Your task to perform on an android device: Search for vegetarian restaurants on Maps Image 0: 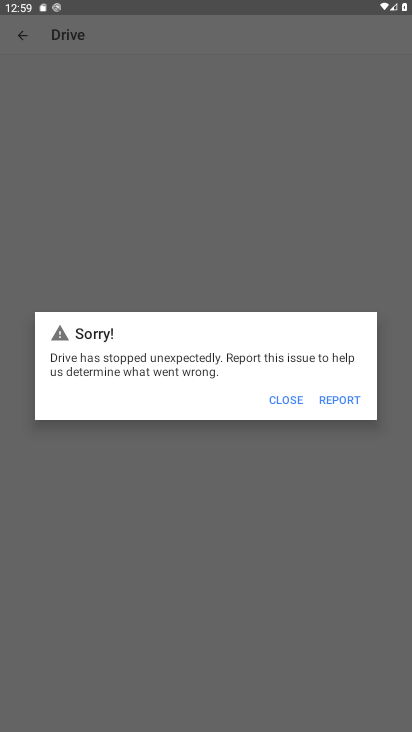
Step 0: click (281, 397)
Your task to perform on an android device: Search for vegetarian restaurants on Maps Image 1: 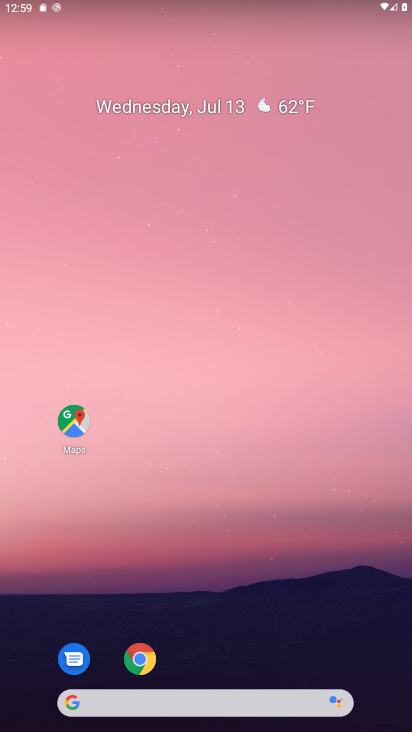
Step 1: drag from (222, 513) to (208, 115)
Your task to perform on an android device: Search for vegetarian restaurants on Maps Image 2: 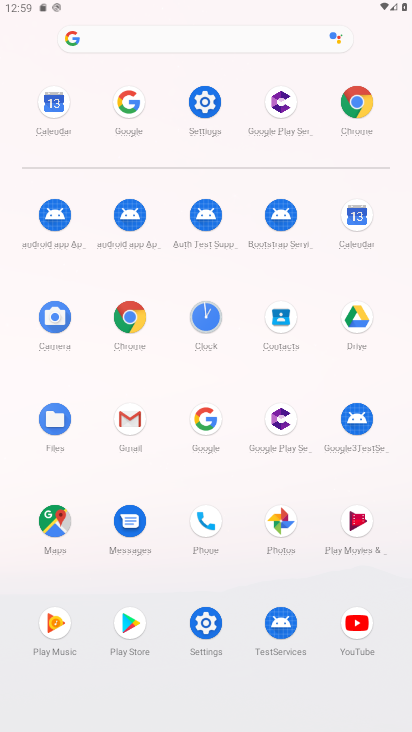
Step 2: click (62, 530)
Your task to perform on an android device: Search for vegetarian restaurants on Maps Image 3: 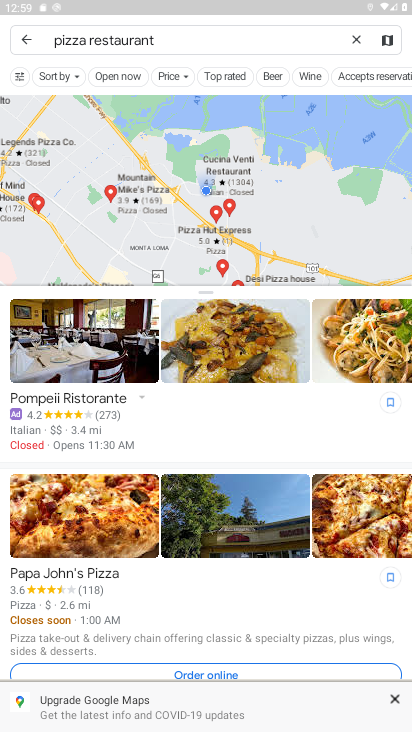
Step 3: click (149, 35)
Your task to perform on an android device: Search for vegetarian restaurants on Maps Image 4: 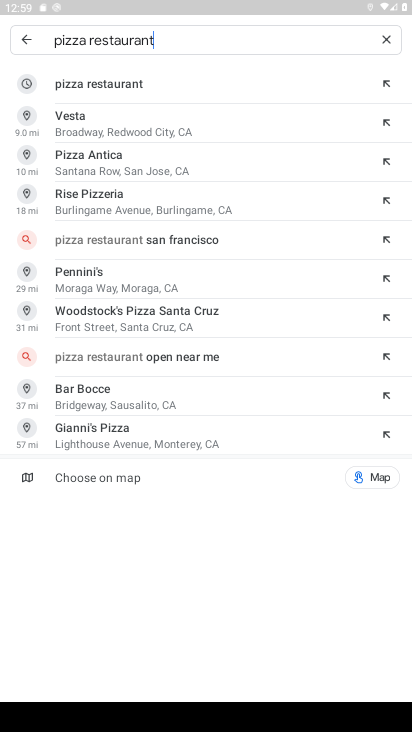
Step 4: click (81, 34)
Your task to perform on an android device: Search for vegetarian restaurants on Maps Image 5: 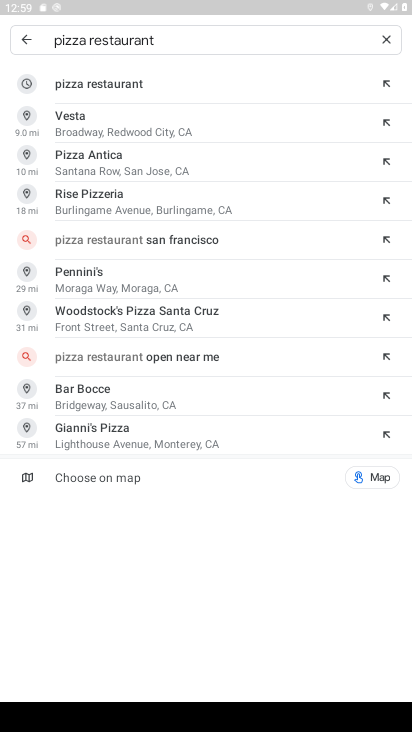
Step 5: click (81, 34)
Your task to perform on an android device: Search for vegetarian restaurants on Maps Image 6: 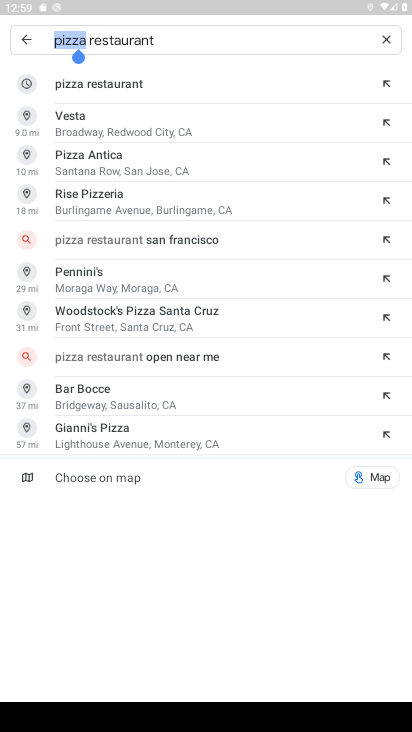
Step 6: click (81, 34)
Your task to perform on an android device: Search for vegetarian restaurants on Maps Image 7: 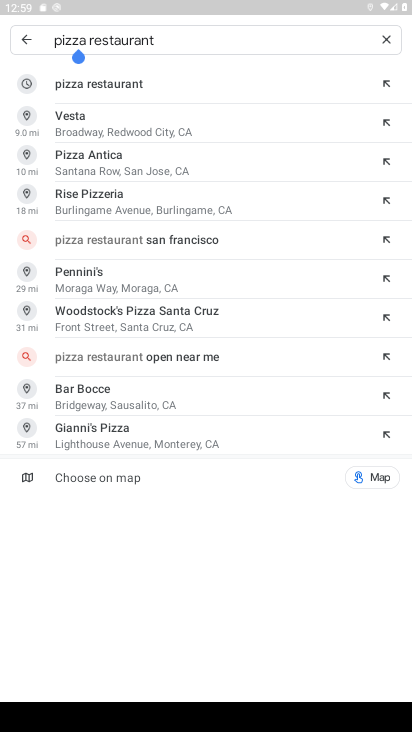
Step 7: click (386, 36)
Your task to perform on an android device: Search for vegetarian restaurants on Maps Image 8: 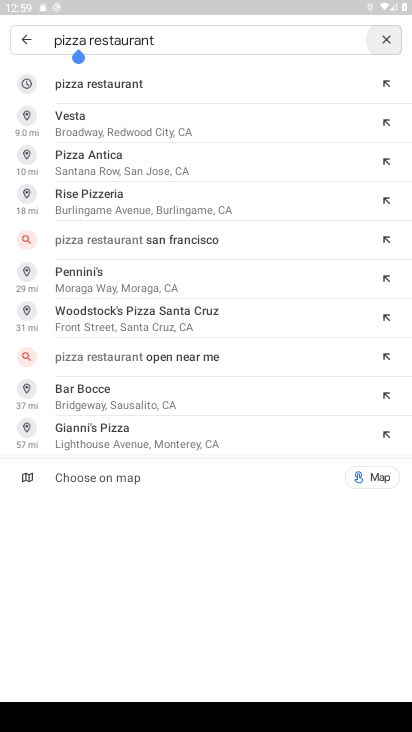
Step 8: click (386, 36)
Your task to perform on an android device: Search for vegetarian restaurants on Maps Image 9: 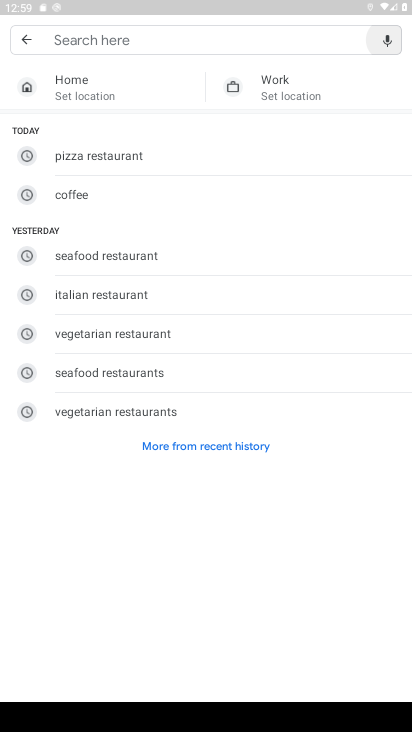
Step 9: click (387, 39)
Your task to perform on an android device: Search for vegetarian restaurants on Maps Image 10: 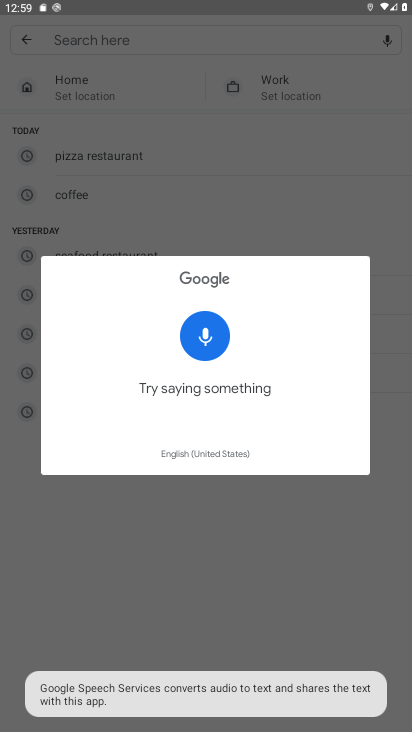
Step 10: click (193, 168)
Your task to perform on an android device: Search for vegetarian restaurants on Maps Image 11: 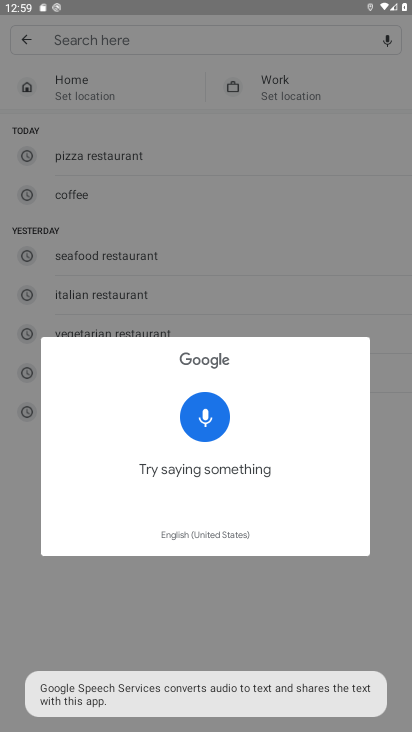
Step 11: click (193, 168)
Your task to perform on an android device: Search for vegetarian restaurants on Maps Image 12: 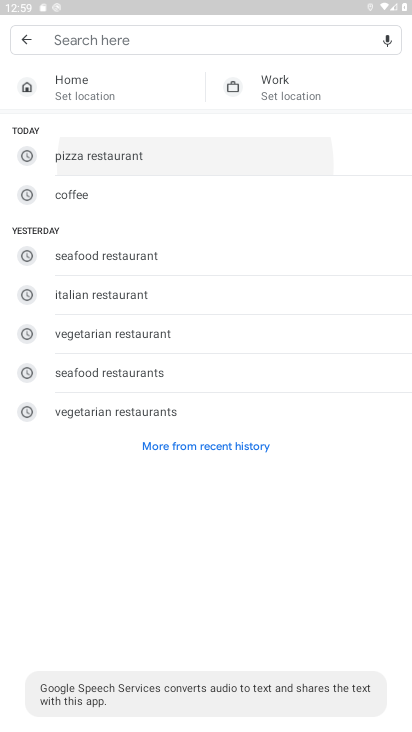
Step 12: click (194, 170)
Your task to perform on an android device: Search for vegetarian restaurants on Maps Image 13: 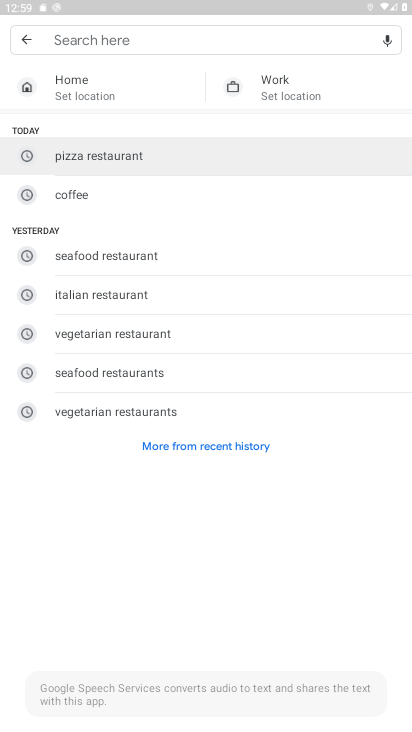
Step 13: click (194, 170)
Your task to perform on an android device: Search for vegetarian restaurants on Maps Image 14: 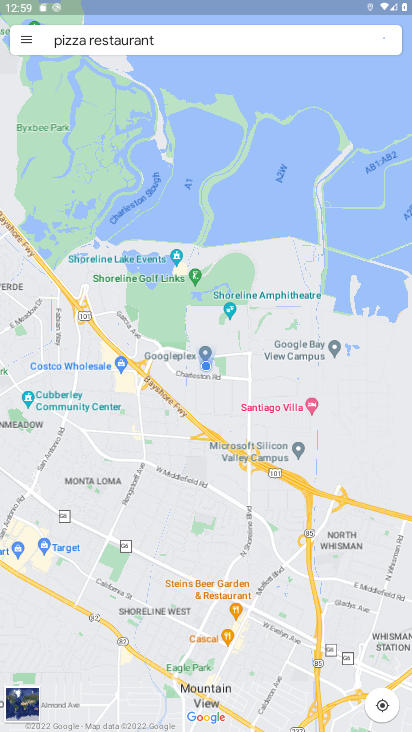
Step 14: press back button
Your task to perform on an android device: Search for vegetarian restaurants on Maps Image 15: 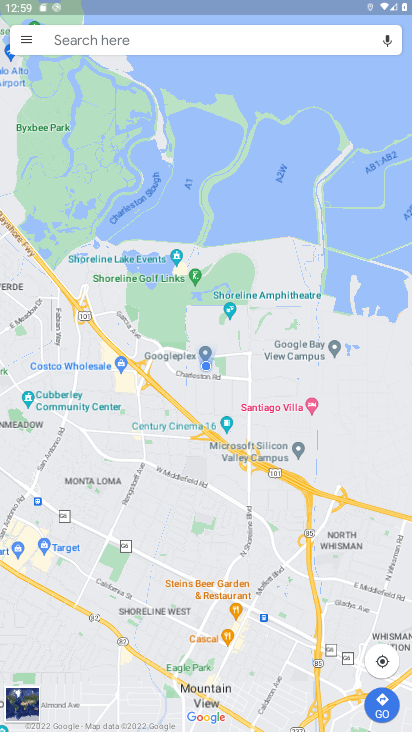
Step 15: press back button
Your task to perform on an android device: Search for vegetarian restaurants on Maps Image 16: 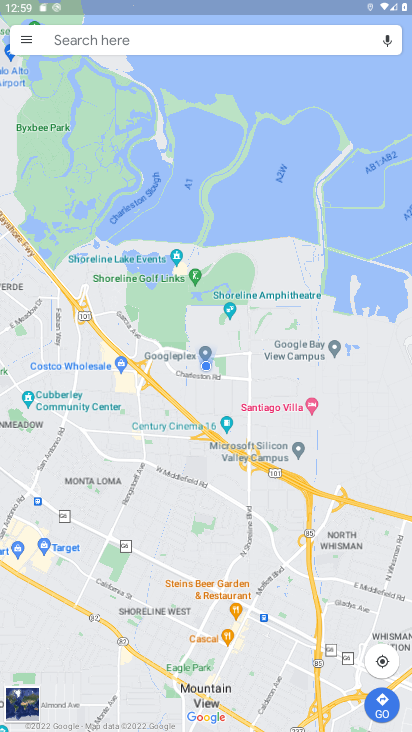
Step 16: press back button
Your task to perform on an android device: Search for vegetarian restaurants on Maps Image 17: 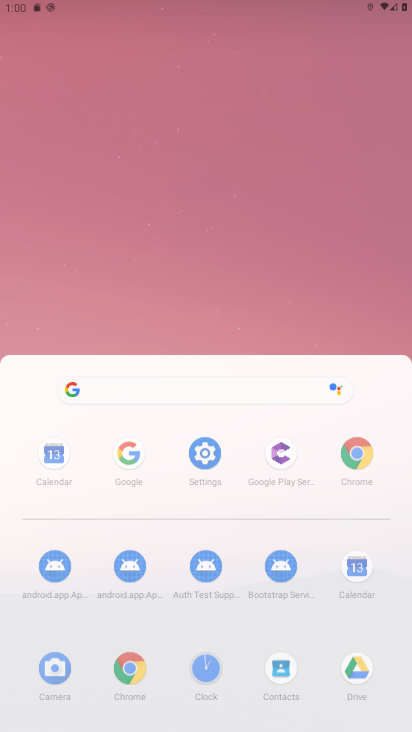
Step 17: press back button
Your task to perform on an android device: Search for vegetarian restaurants on Maps Image 18: 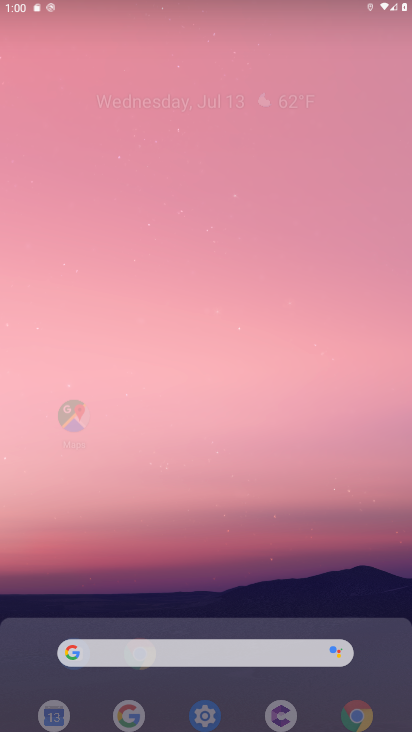
Step 18: click (135, 36)
Your task to perform on an android device: Search for vegetarian restaurants on Maps Image 19: 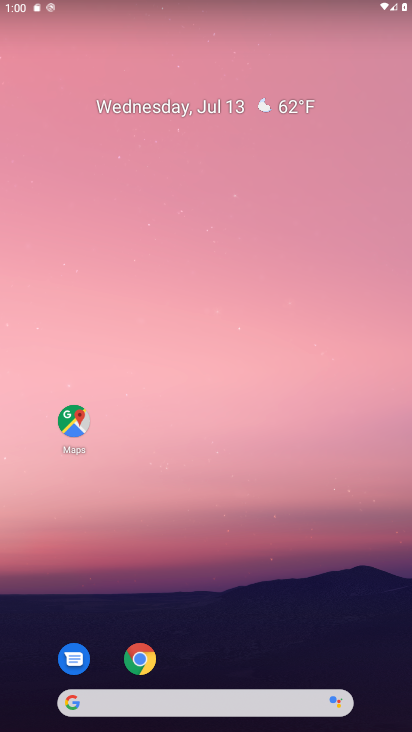
Step 19: drag from (134, 391) to (90, 93)
Your task to perform on an android device: Search for vegetarian restaurants on Maps Image 20: 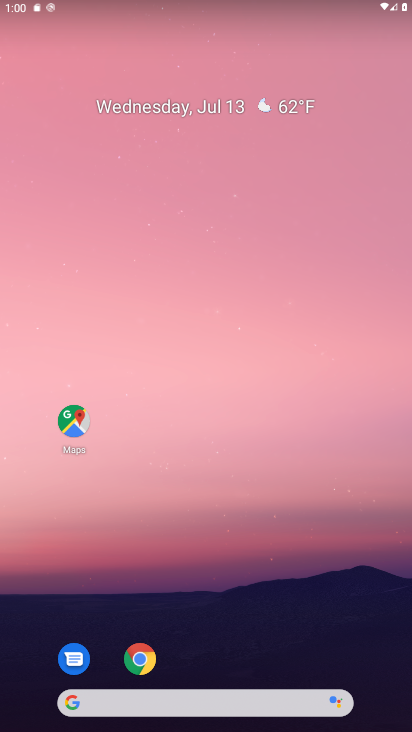
Step 20: drag from (207, 405) to (257, 151)
Your task to perform on an android device: Search for vegetarian restaurants on Maps Image 21: 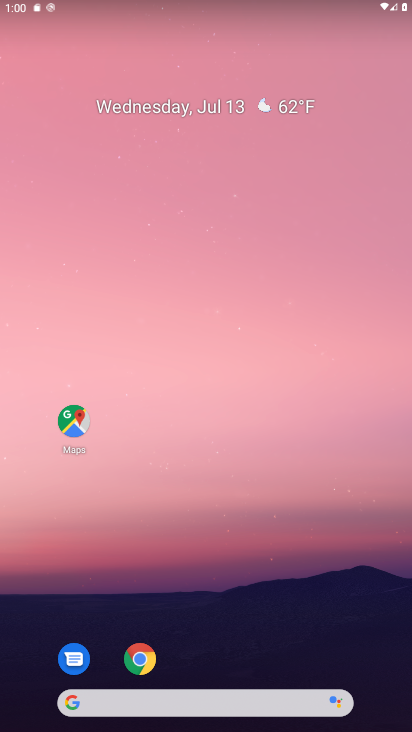
Step 21: drag from (185, 548) to (167, 162)
Your task to perform on an android device: Search for vegetarian restaurants on Maps Image 22: 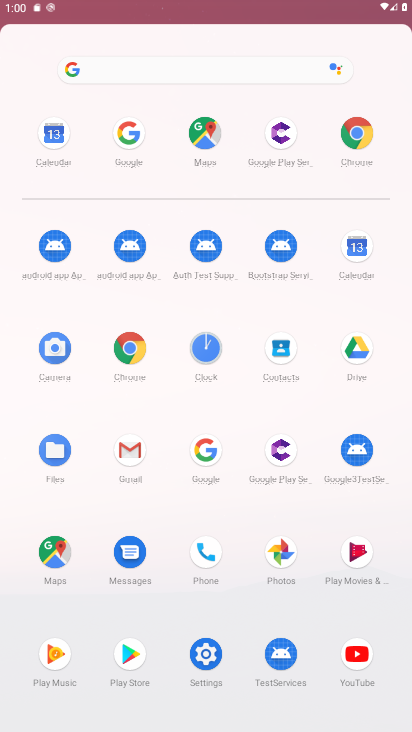
Step 22: drag from (172, 437) to (133, 83)
Your task to perform on an android device: Search for vegetarian restaurants on Maps Image 23: 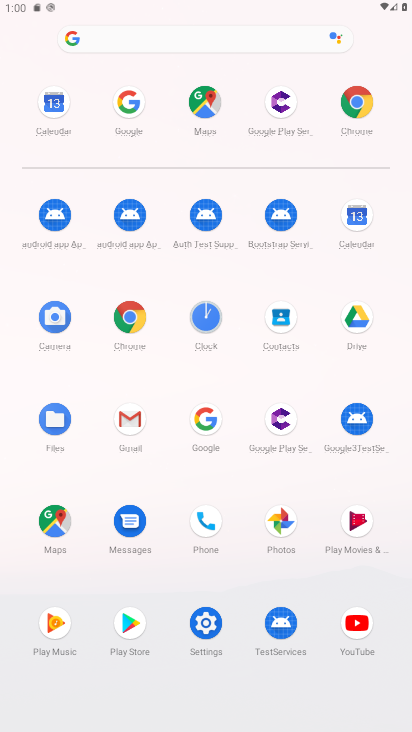
Step 23: drag from (148, 592) to (78, 139)
Your task to perform on an android device: Search for vegetarian restaurants on Maps Image 24: 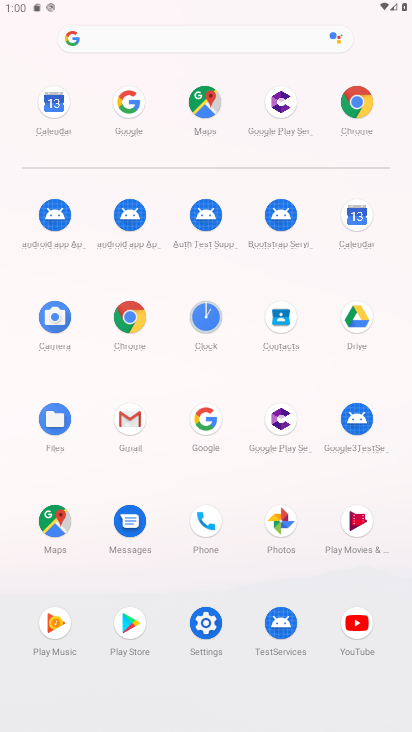
Step 24: click (196, 139)
Your task to perform on an android device: Search for vegetarian restaurants on Maps Image 25: 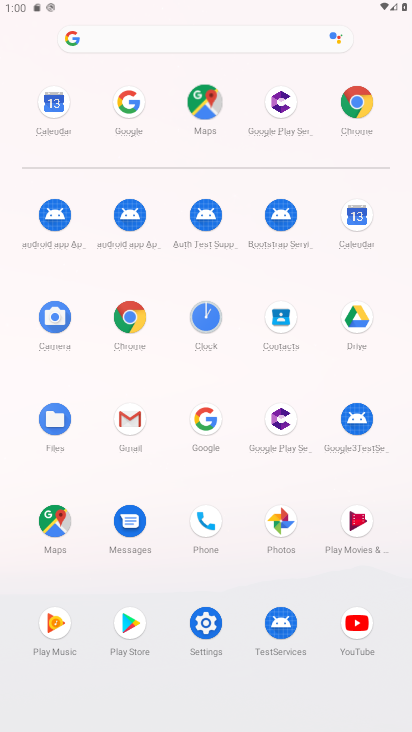
Step 25: click (140, 240)
Your task to perform on an android device: Search for vegetarian restaurants on Maps Image 26: 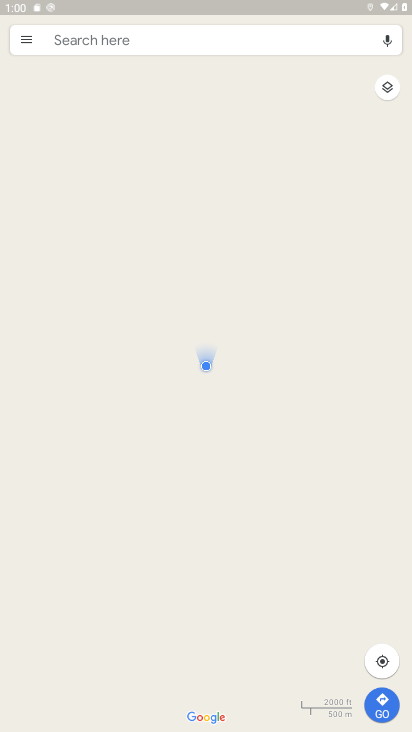
Step 26: drag from (29, 36) to (76, 312)
Your task to perform on an android device: Search for vegetarian restaurants on Maps Image 27: 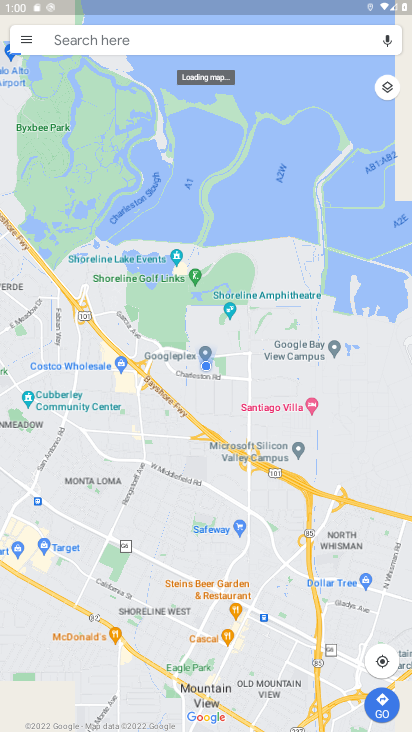
Step 27: drag from (24, 37) to (46, 306)
Your task to perform on an android device: Search for vegetarian restaurants on Maps Image 28: 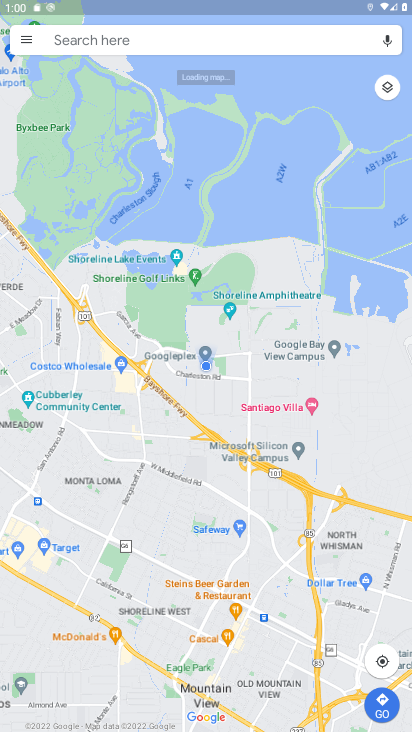
Step 28: click (30, 42)
Your task to perform on an android device: Search for vegetarian restaurants on Maps Image 29: 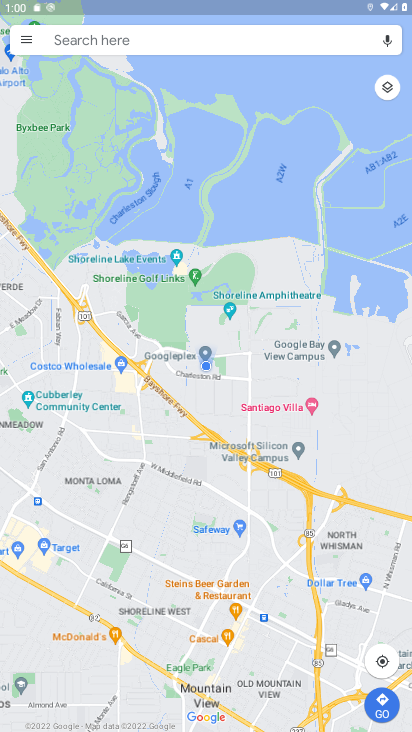
Step 29: drag from (30, 42) to (71, 199)
Your task to perform on an android device: Search for vegetarian restaurants on Maps Image 30: 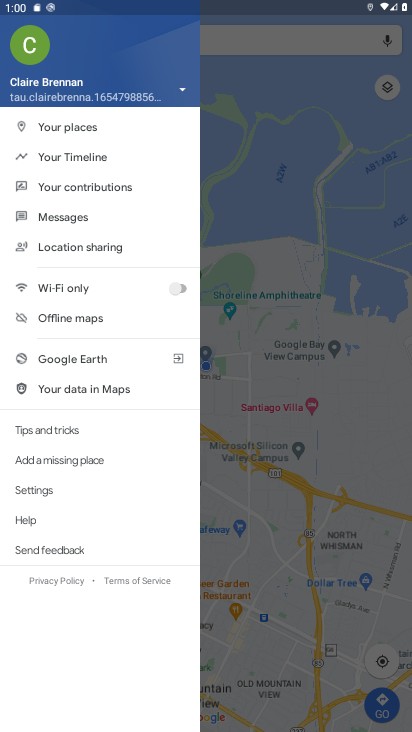
Step 30: click (301, 190)
Your task to perform on an android device: Search for vegetarian restaurants on Maps Image 31: 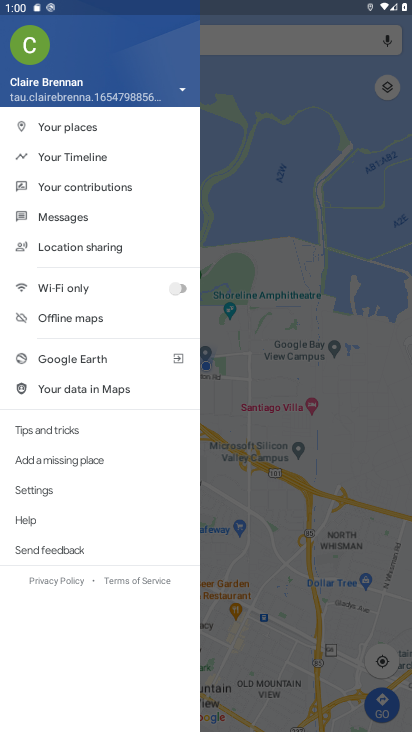
Step 31: click (301, 190)
Your task to perform on an android device: Search for vegetarian restaurants on Maps Image 32: 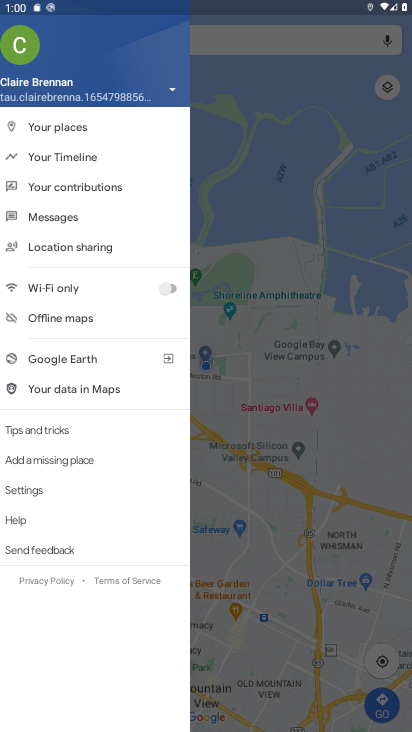
Step 32: click (301, 190)
Your task to perform on an android device: Search for vegetarian restaurants on Maps Image 33: 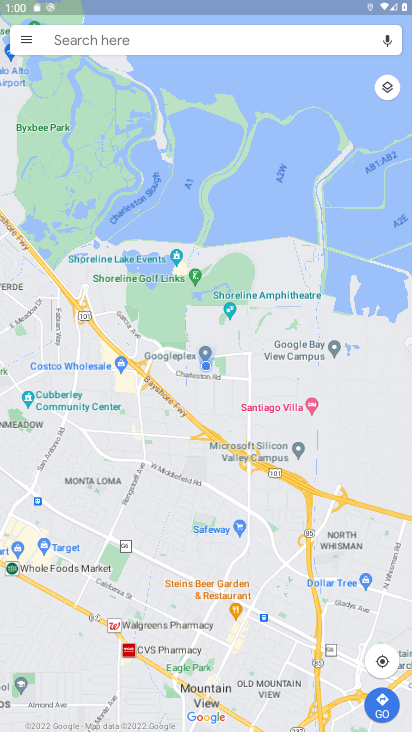
Step 33: click (291, 269)
Your task to perform on an android device: Search for vegetarian restaurants on Maps Image 34: 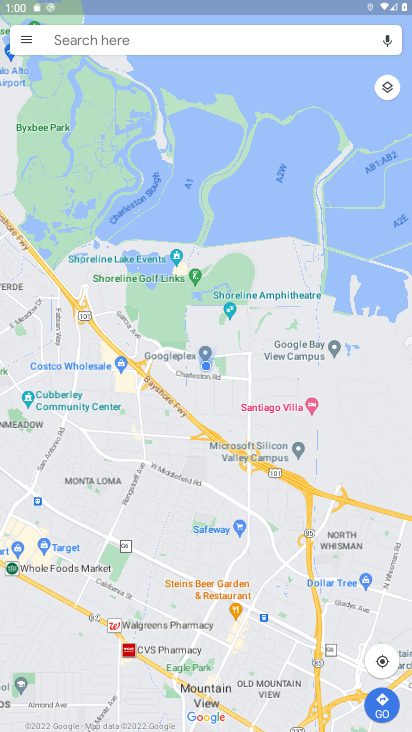
Step 34: click (85, 44)
Your task to perform on an android device: Search for vegetarian restaurants on Maps Image 35: 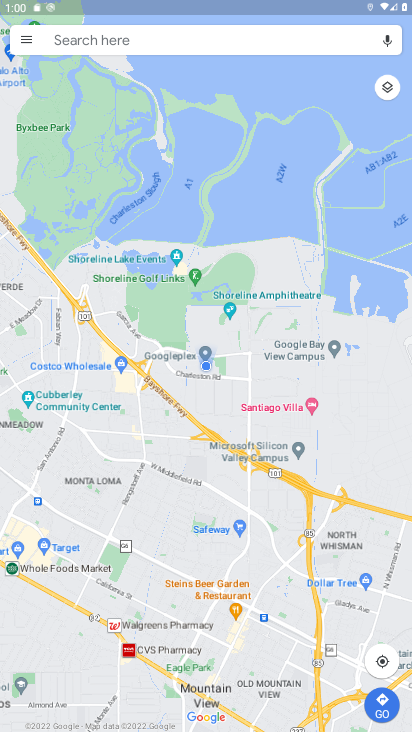
Step 35: click (82, 45)
Your task to perform on an android device: Search for vegetarian restaurants on Maps Image 36: 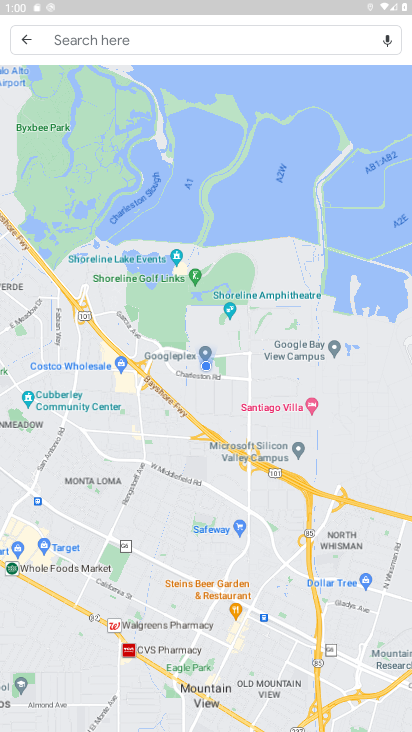
Step 36: click (82, 45)
Your task to perform on an android device: Search for vegetarian restaurants on Maps Image 37: 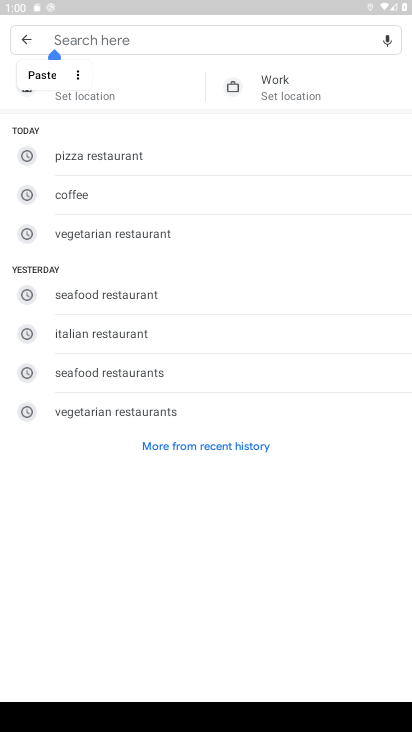
Step 37: click (129, 229)
Your task to perform on an android device: Search for vegetarian restaurants on Maps Image 38: 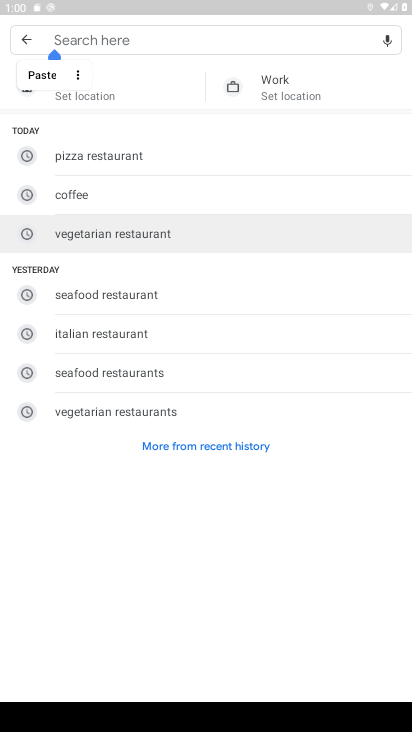
Step 38: click (130, 228)
Your task to perform on an android device: Search for vegetarian restaurants on Maps Image 39: 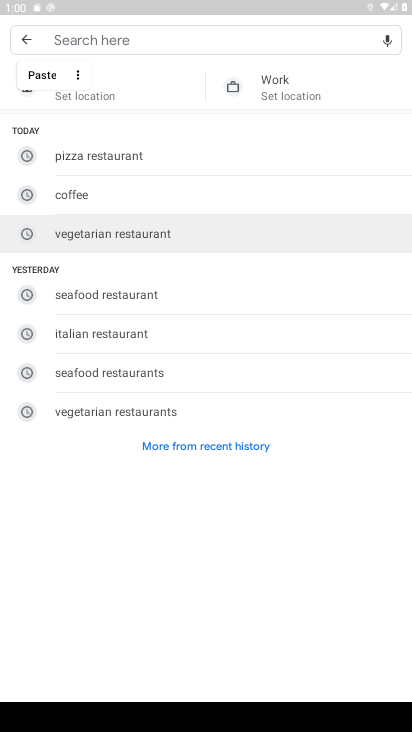
Step 39: click (130, 228)
Your task to perform on an android device: Search for vegetarian restaurants on Maps Image 40: 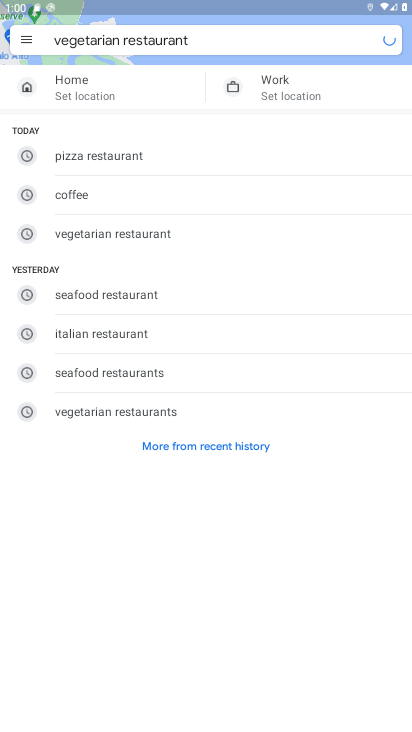
Step 40: click (130, 228)
Your task to perform on an android device: Search for vegetarian restaurants on Maps Image 41: 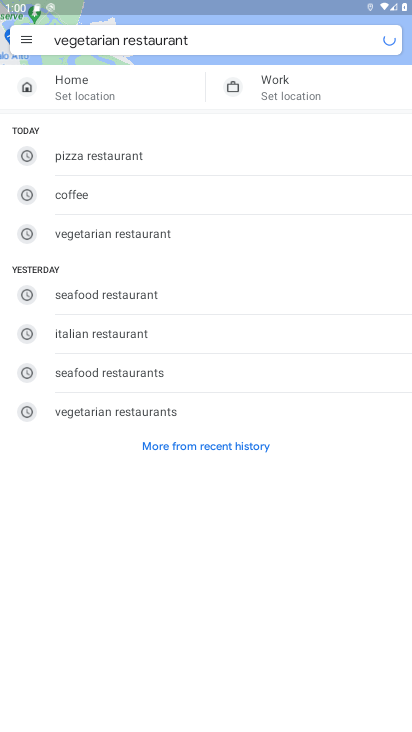
Step 41: click (132, 226)
Your task to perform on an android device: Search for vegetarian restaurants on Maps Image 42: 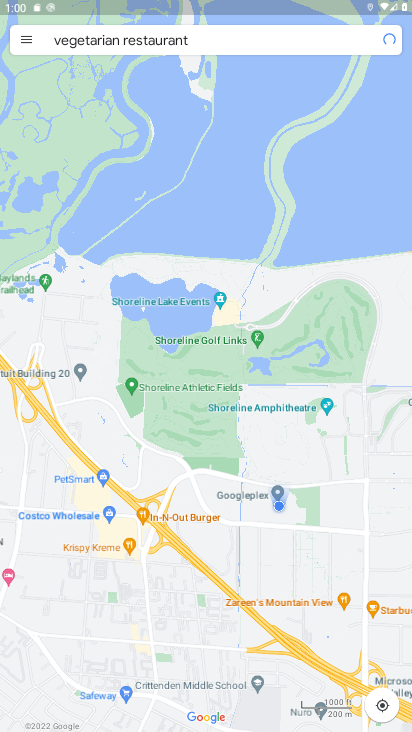
Step 42: task complete